Your task to perform on an android device: change text size in settings app Image 0: 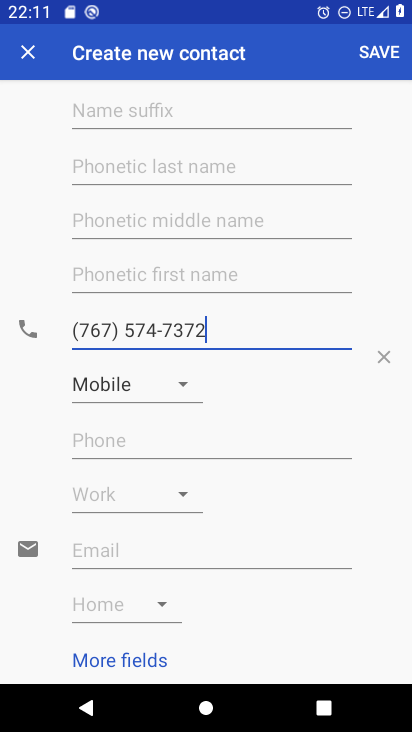
Step 0: press home button
Your task to perform on an android device: change text size in settings app Image 1: 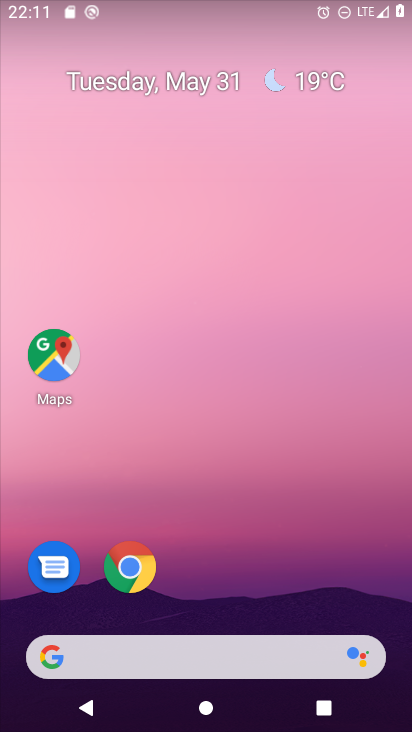
Step 1: drag from (132, 586) to (171, 274)
Your task to perform on an android device: change text size in settings app Image 2: 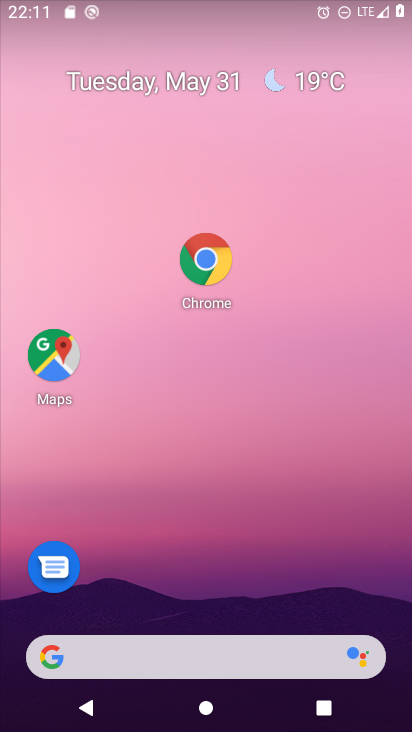
Step 2: drag from (237, 623) to (297, 192)
Your task to perform on an android device: change text size in settings app Image 3: 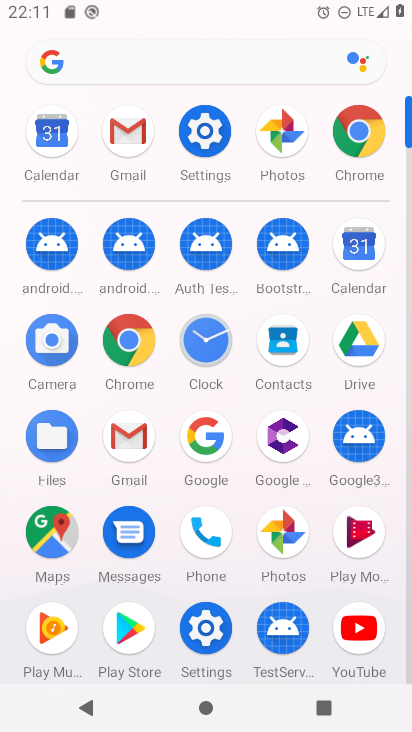
Step 3: click (208, 617)
Your task to perform on an android device: change text size in settings app Image 4: 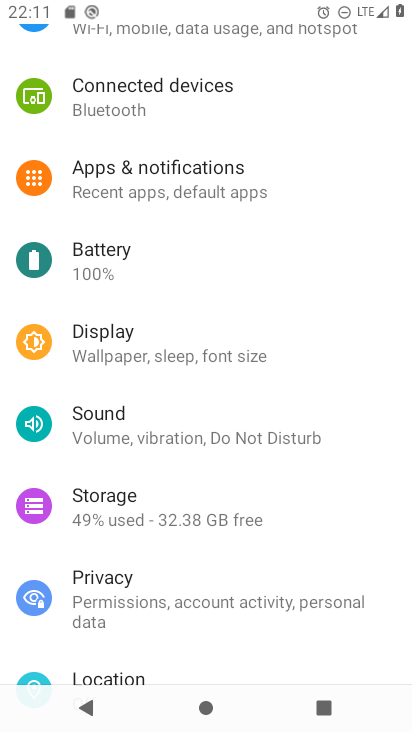
Step 4: drag from (183, 653) to (240, 267)
Your task to perform on an android device: change text size in settings app Image 5: 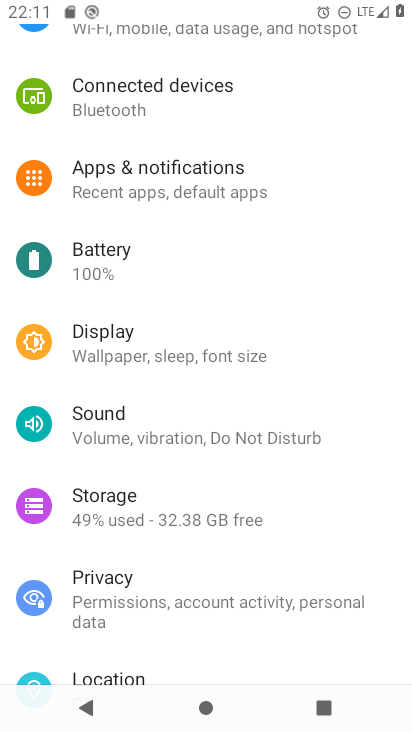
Step 5: drag from (140, 626) to (203, 252)
Your task to perform on an android device: change text size in settings app Image 6: 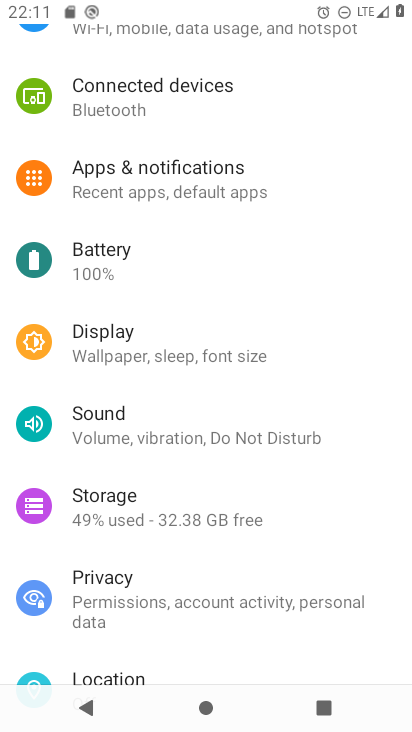
Step 6: drag from (96, 673) to (137, 378)
Your task to perform on an android device: change text size in settings app Image 7: 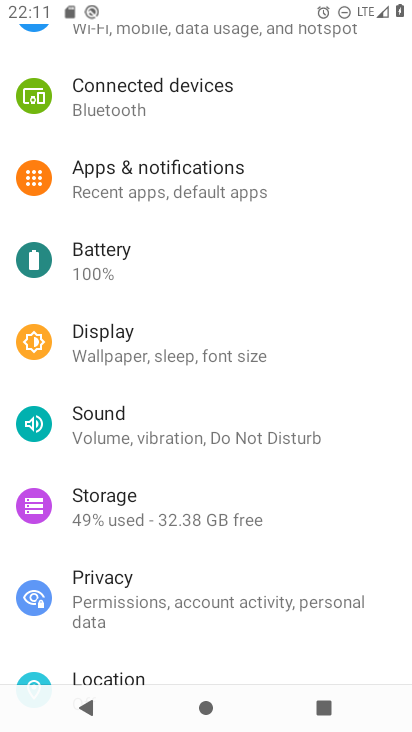
Step 7: drag from (158, 668) to (170, 382)
Your task to perform on an android device: change text size in settings app Image 8: 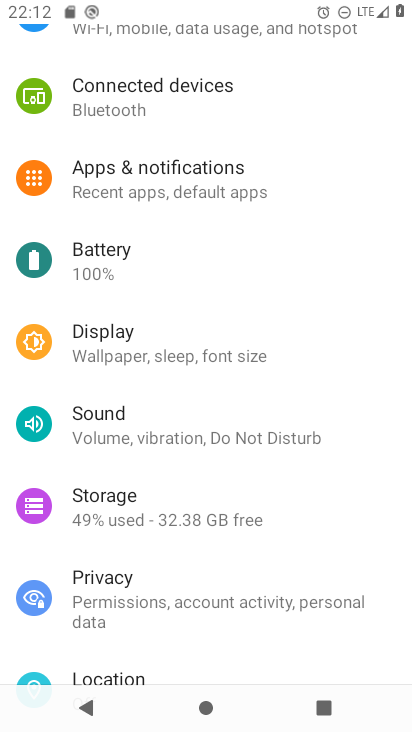
Step 8: drag from (156, 640) to (197, 337)
Your task to perform on an android device: change text size in settings app Image 9: 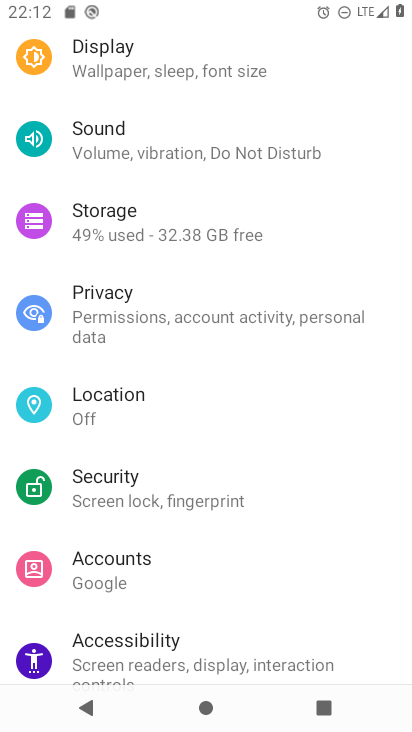
Step 9: drag from (187, 659) to (208, 352)
Your task to perform on an android device: change text size in settings app Image 10: 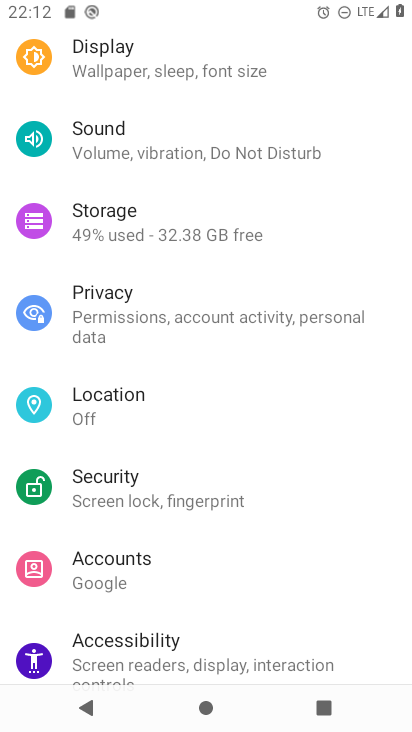
Step 10: click (162, 641)
Your task to perform on an android device: change text size in settings app Image 11: 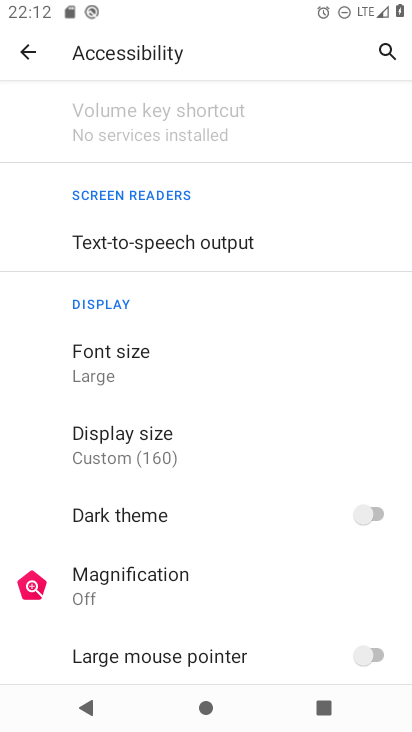
Step 11: click (103, 365)
Your task to perform on an android device: change text size in settings app Image 12: 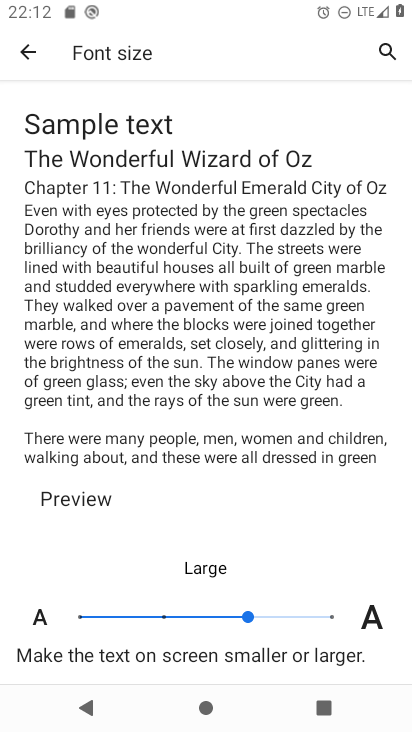
Step 12: click (166, 616)
Your task to perform on an android device: change text size in settings app Image 13: 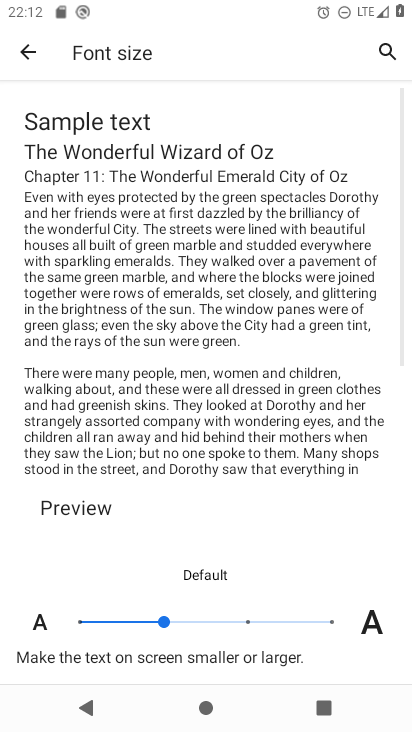
Step 13: task complete